Your task to perform on an android device: toggle show notifications on the lock screen Image 0: 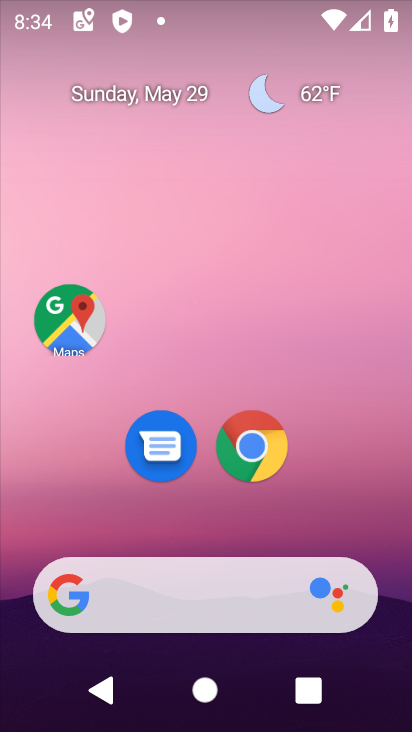
Step 0: click (241, 458)
Your task to perform on an android device: toggle show notifications on the lock screen Image 1: 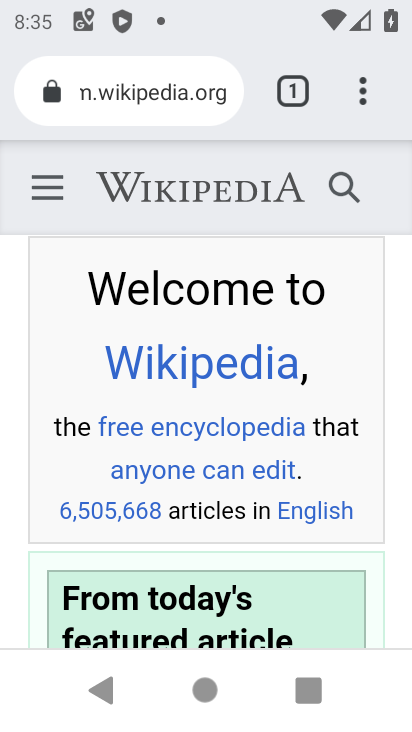
Step 1: press home button
Your task to perform on an android device: toggle show notifications on the lock screen Image 2: 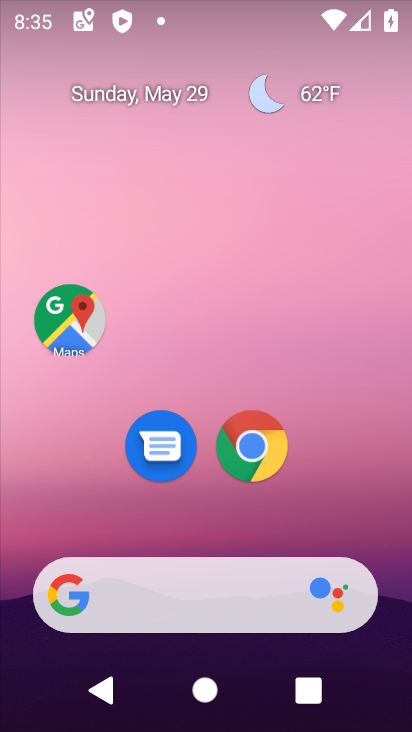
Step 2: drag from (174, 575) to (230, 87)
Your task to perform on an android device: toggle show notifications on the lock screen Image 3: 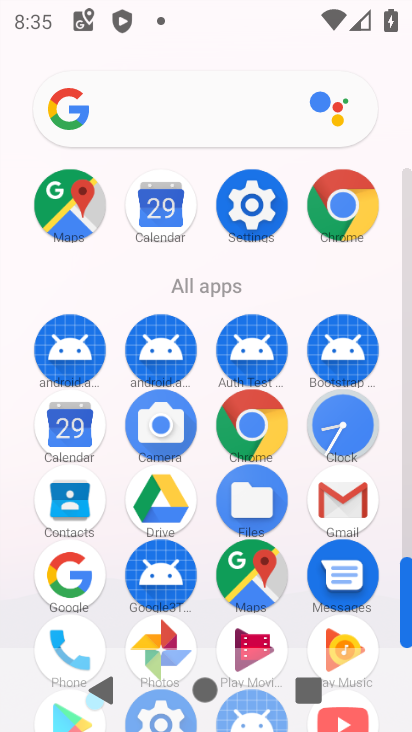
Step 3: click (260, 206)
Your task to perform on an android device: toggle show notifications on the lock screen Image 4: 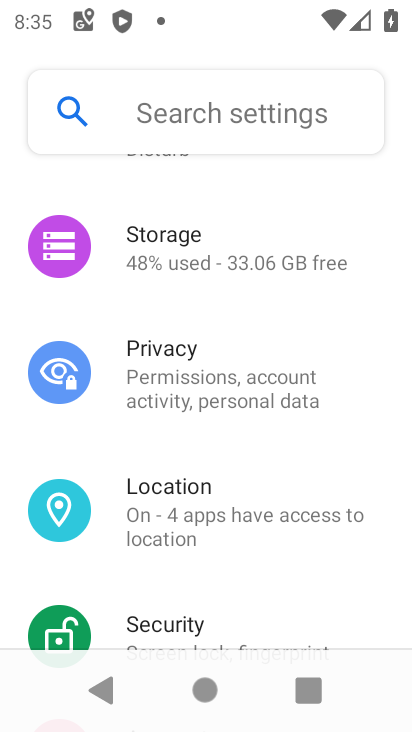
Step 4: drag from (205, 292) to (150, 664)
Your task to perform on an android device: toggle show notifications on the lock screen Image 5: 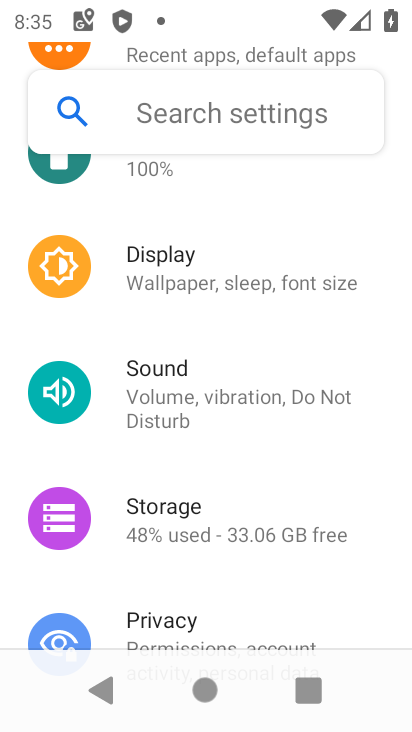
Step 5: drag from (225, 250) to (183, 642)
Your task to perform on an android device: toggle show notifications on the lock screen Image 6: 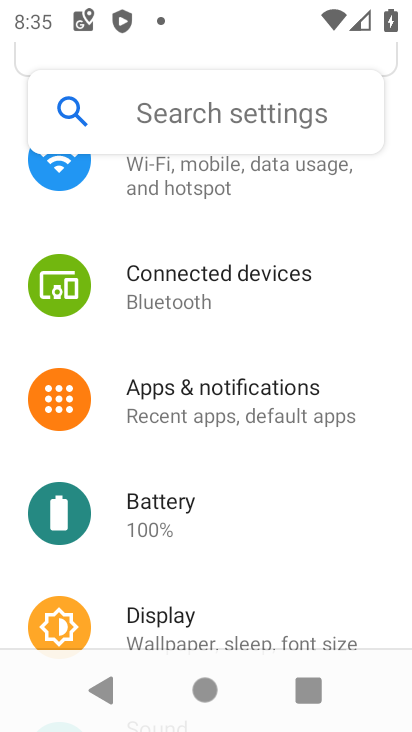
Step 6: click (197, 395)
Your task to perform on an android device: toggle show notifications on the lock screen Image 7: 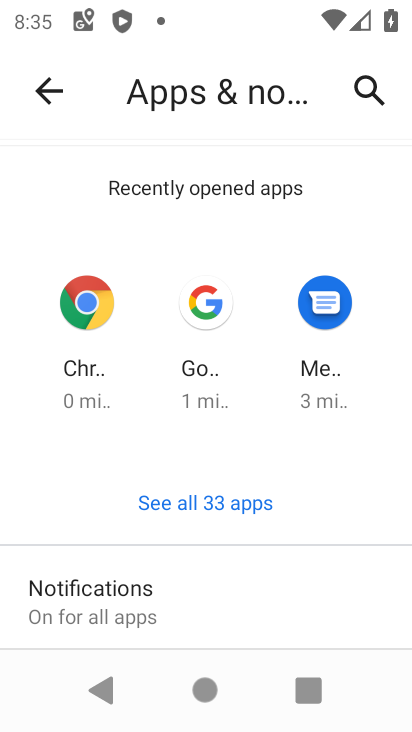
Step 7: drag from (197, 566) to (236, 125)
Your task to perform on an android device: toggle show notifications on the lock screen Image 8: 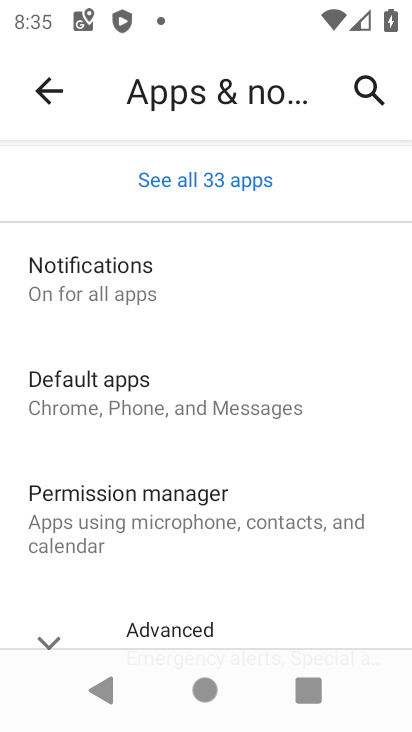
Step 8: click (139, 295)
Your task to perform on an android device: toggle show notifications on the lock screen Image 9: 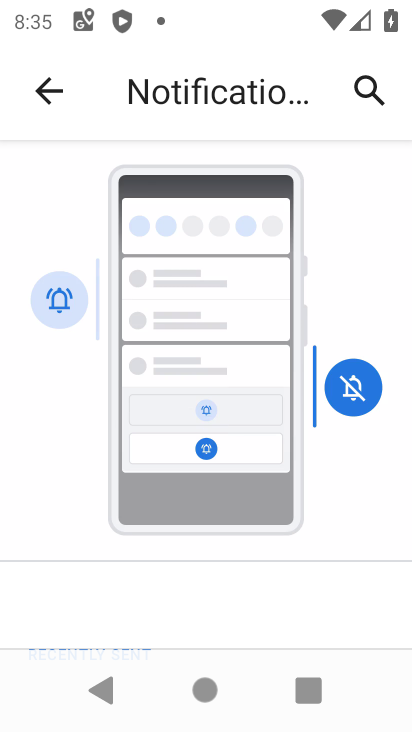
Step 9: drag from (247, 596) to (262, 68)
Your task to perform on an android device: toggle show notifications on the lock screen Image 10: 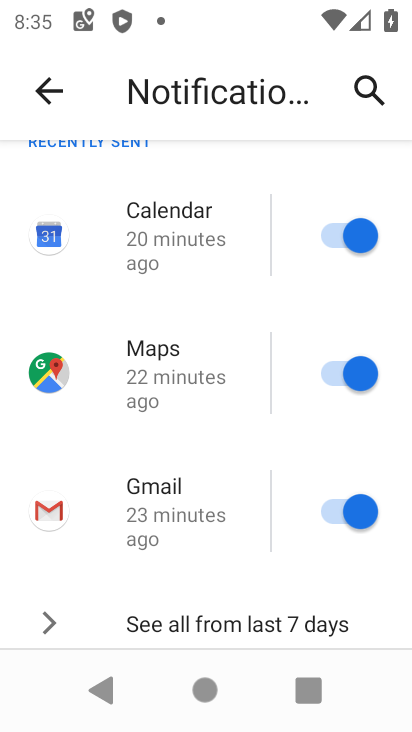
Step 10: drag from (169, 564) to (201, 60)
Your task to perform on an android device: toggle show notifications on the lock screen Image 11: 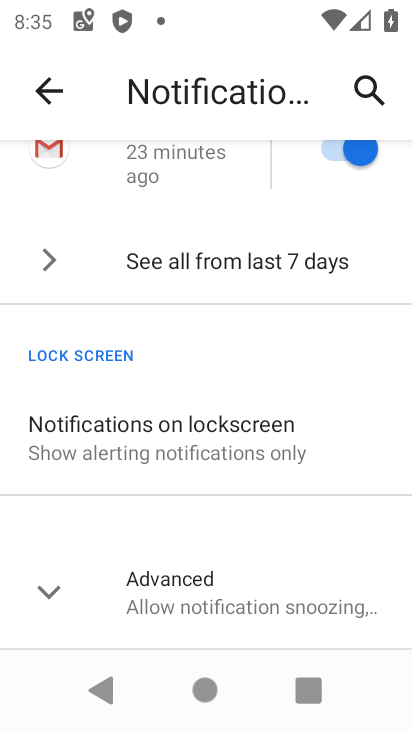
Step 11: click (237, 465)
Your task to perform on an android device: toggle show notifications on the lock screen Image 12: 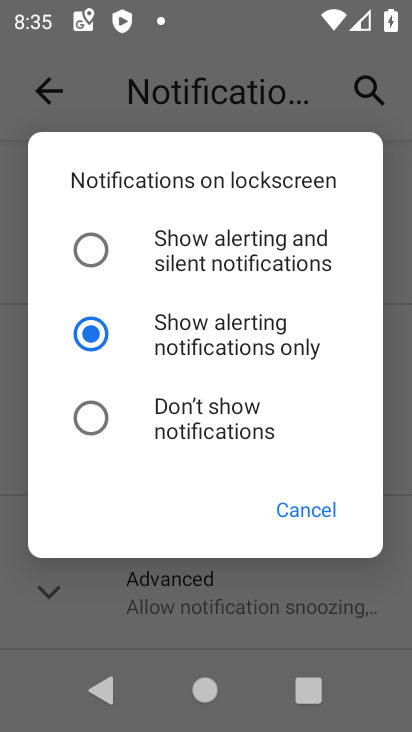
Step 12: click (178, 249)
Your task to perform on an android device: toggle show notifications on the lock screen Image 13: 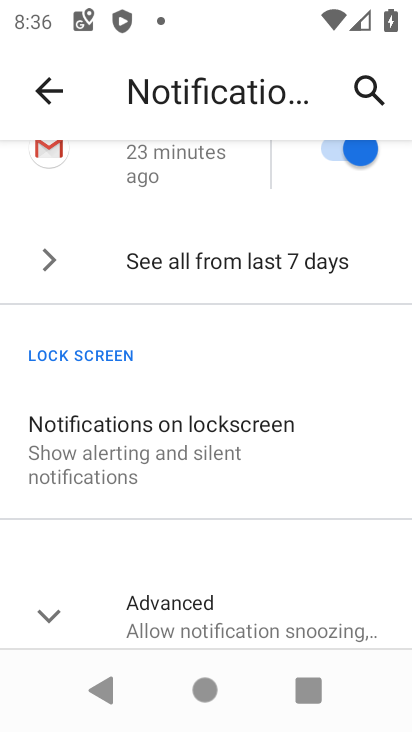
Step 13: task complete